Your task to perform on an android device: turn on sleep mode Image 0: 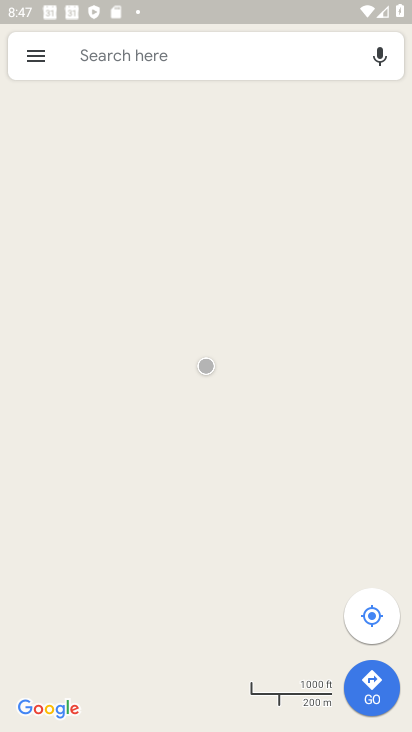
Step 0: press home button
Your task to perform on an android device: turn on sleep mode Image 1: 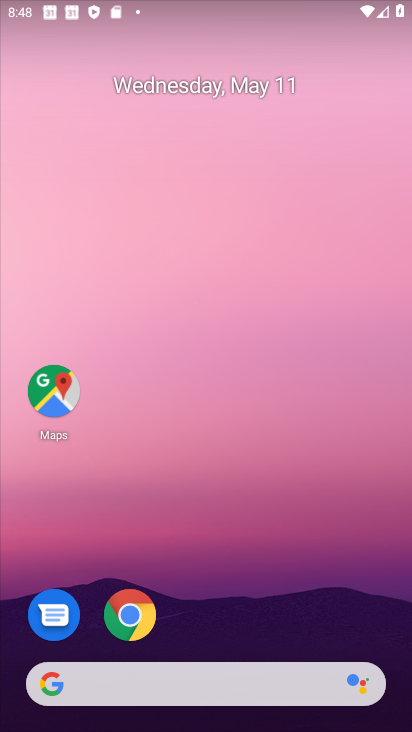
Step 1: drag from (51, 537) to (255, 110)
Your task to perform on an android device: turn on sleep mode Image 2: 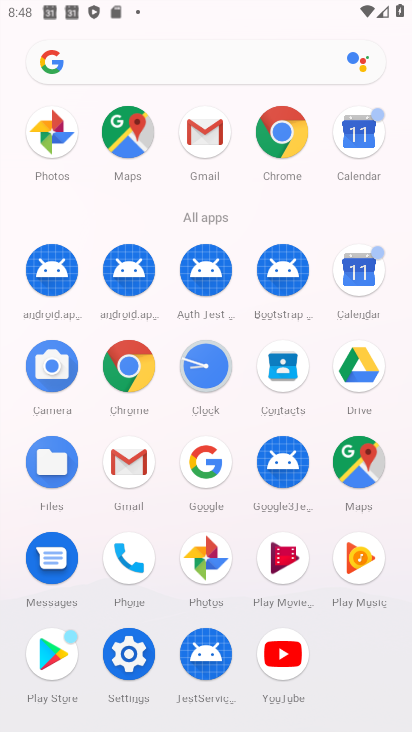
Step 2: press back button
Your task to perform on an android device: turn on sleep mode Image 3: 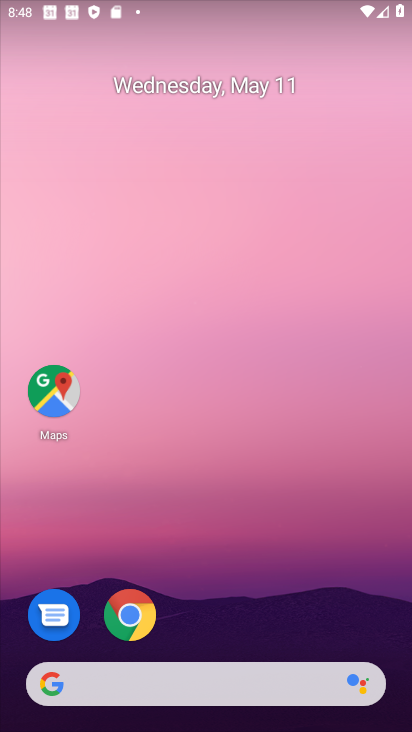
Step 3: press home button
Your task to perform on an android device: turn on sleep mode Image 4: 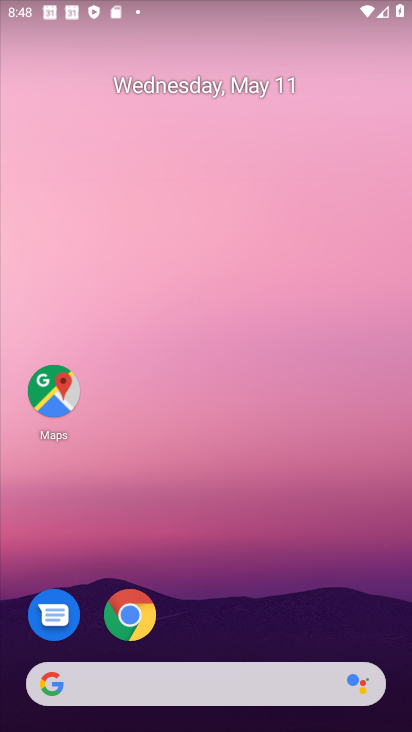
Step 4: drag from (30, 562) to (167, 159)
Your task to perform on an android device: turn on sleep mode Image 5: 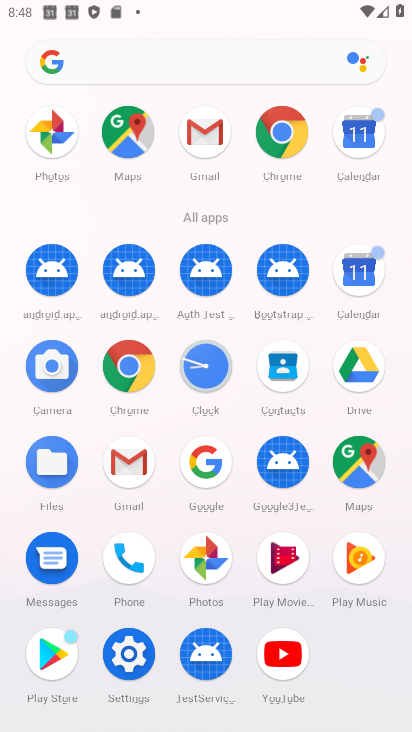
Step 5: click (134, 657)
Your task to perform on an android device: turn on sleep mode Image 6: 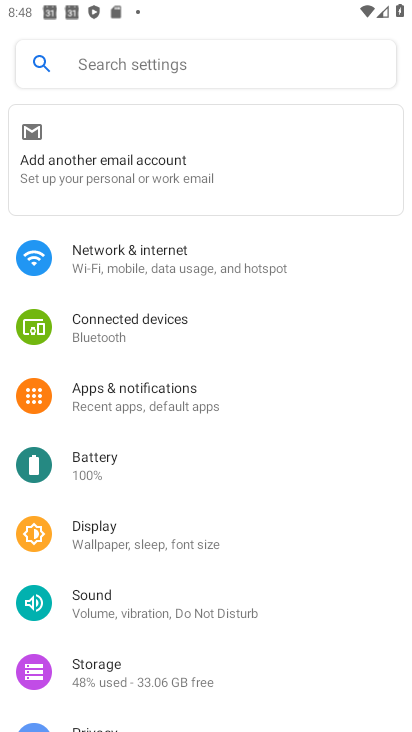
Step 6: click (125, 550)
Your task to perform on an android device: turn on sleep mode Image 7: 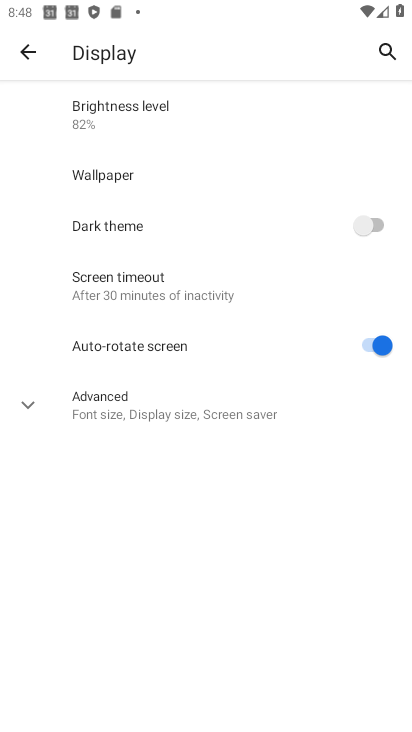
Step 7: task complete